Your task to perform on an android device: Open calendar and show me the first week of next month Image 0: 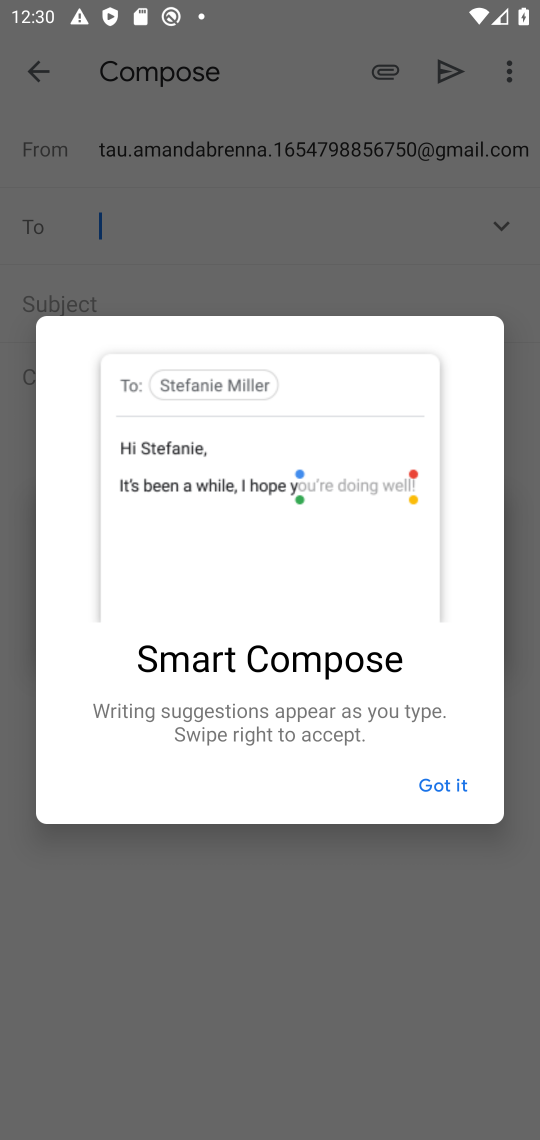
Step 0: press home button
Your task to perform on an android device: Open calendar and show me the first week of next month Image 1: 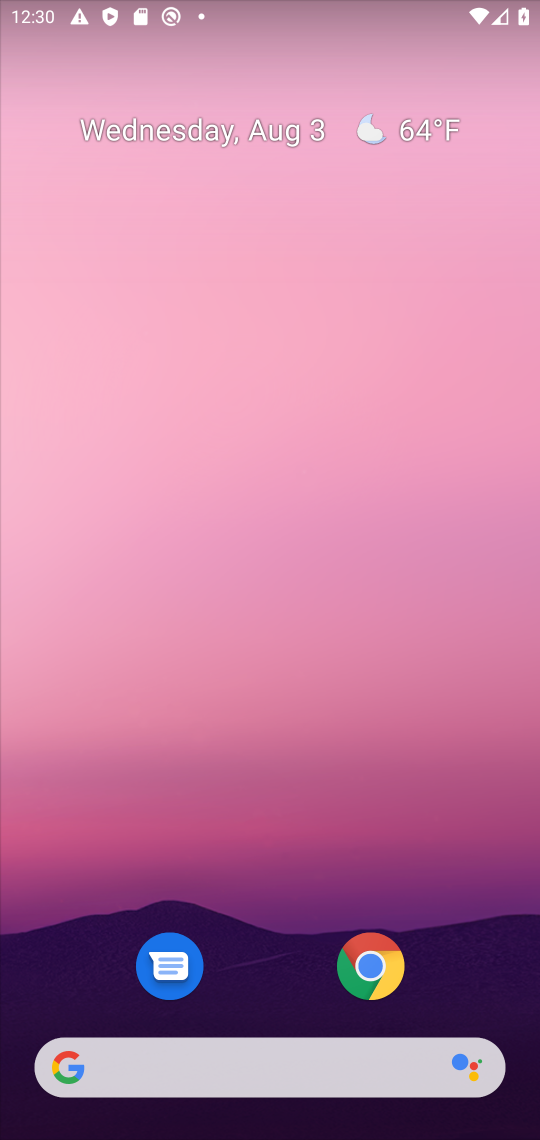
Step 1: drag from (277, 948) to (276, 92)
Your task to perform on an android device: Open calendar and show me the first week of next month Image 2: 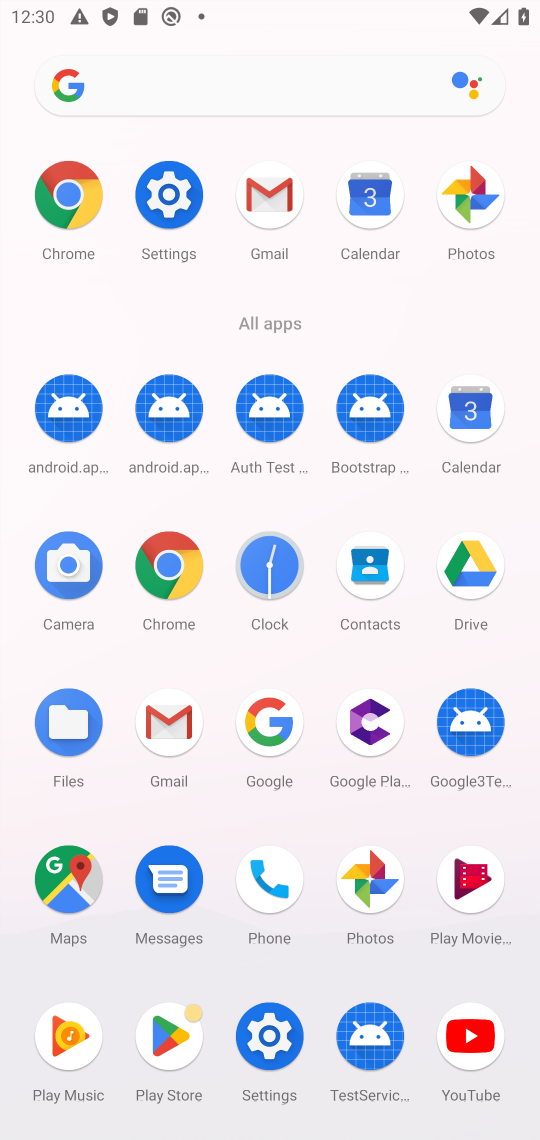
Step 2: click (455, 432)
Your task to perform on an android device: Open calendar and show me the first week of next month Image 3: 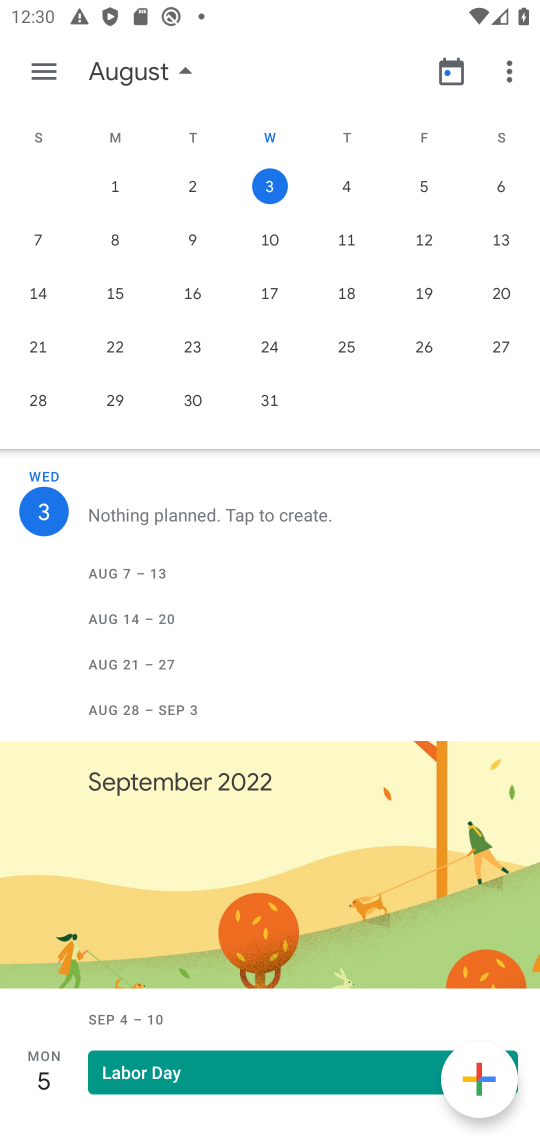
Step 3: task complete